Your task to perform on an android device: change keyboard looks Image 0: 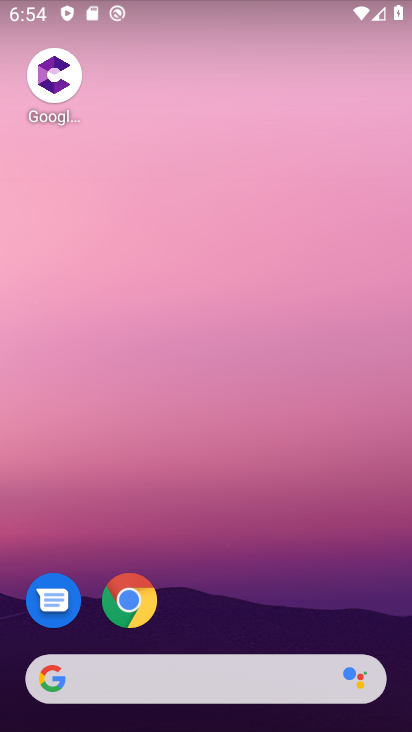
Step 0: drag from (280, 590) to (237, 142)
Your task to perform on an android device: change keyboard looks Image 1: 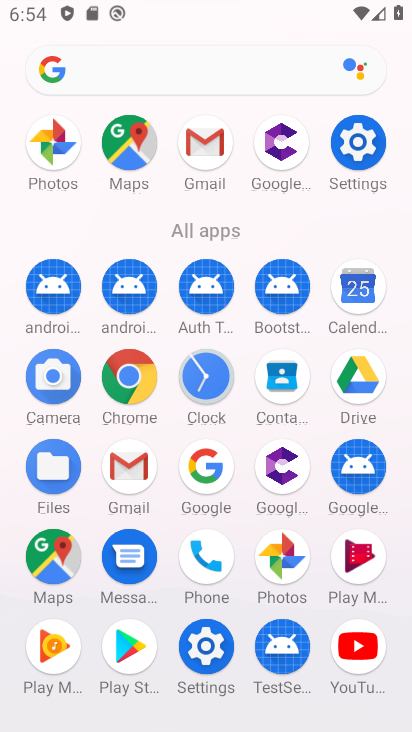
Step 1: click (360, 143)
Your task to perform on an android device: change keyboard looks Image 2: 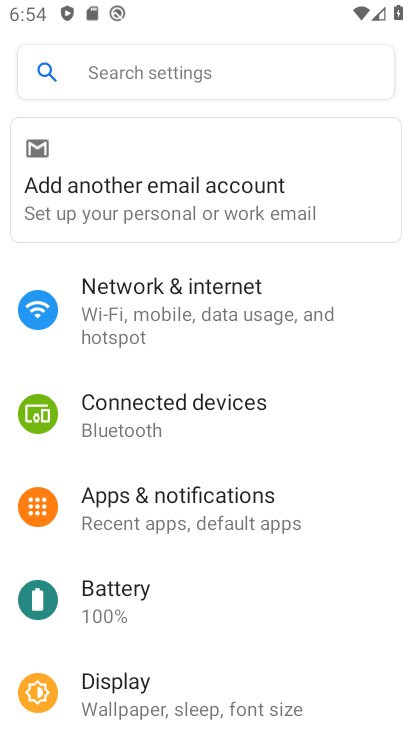
Step 2: drag from (175, 429) to (228, 344)
Your task to perform on an android device: change keyboard looks Image 3: 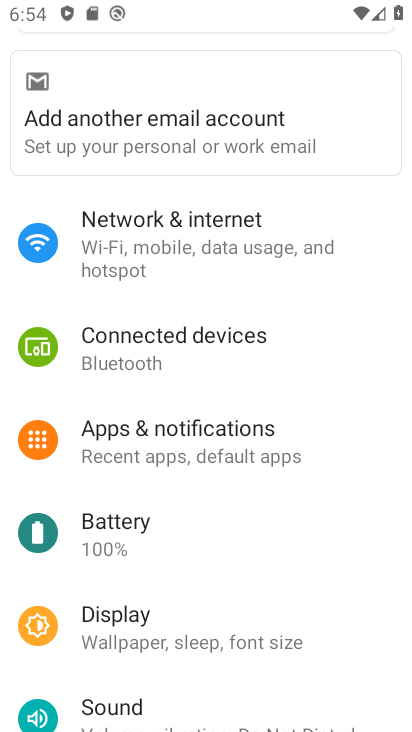
Step 3: drag from (164, 481) to (239, 368)
Your task to perform on an android device: change keyboard looks Image 4: 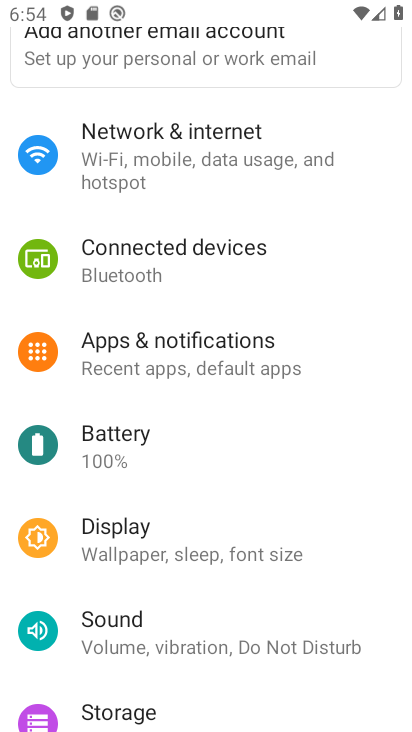
Step 4: drag from (139, 482) to (233, 381)
Your task to perform on an android device: change keyboard looks Image 5: 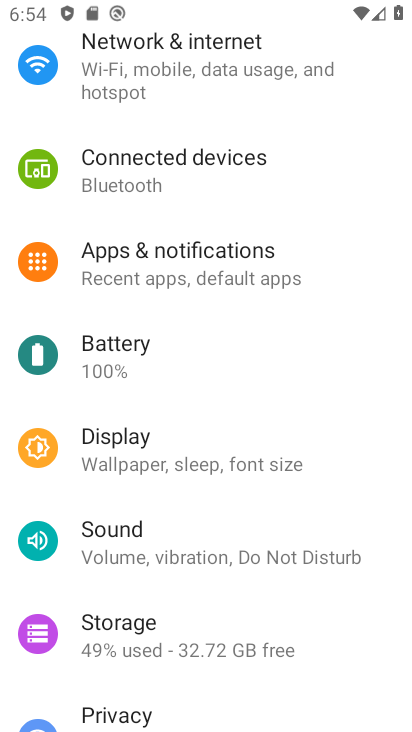
Step 5: drag from (138, 404) to (239, 293)
Your task to perform on an android device: change keyboard looks Image 6: 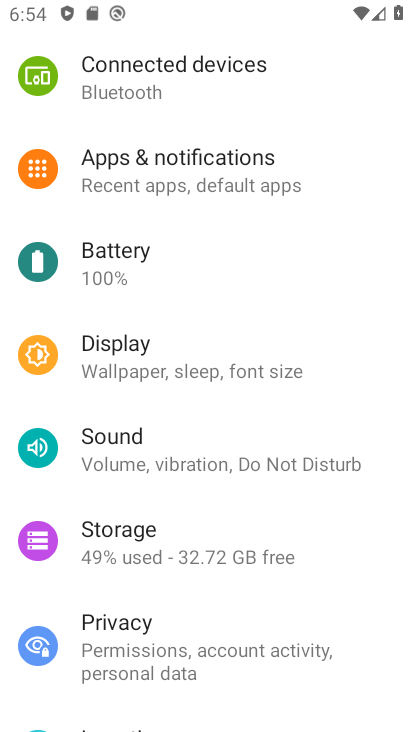
Step 6: drag from (117, 401) to (238, 278)
Your task to perform on an android device: change keyboard looks Image 7: 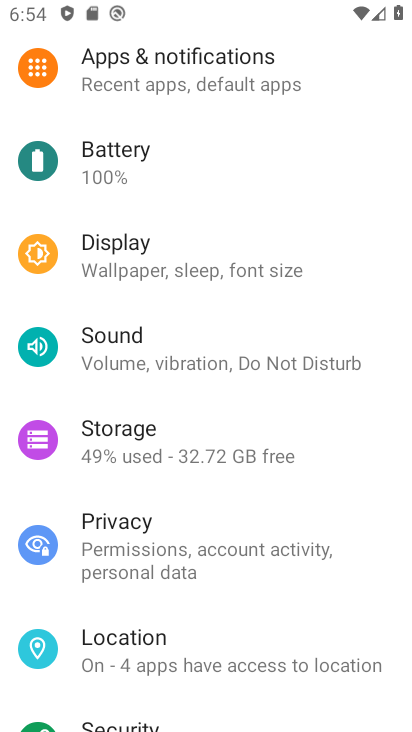
Step 7: drag from (121, 409) to (250, 287)
Your task to perform on an android device: change keyboard looks Image 8: 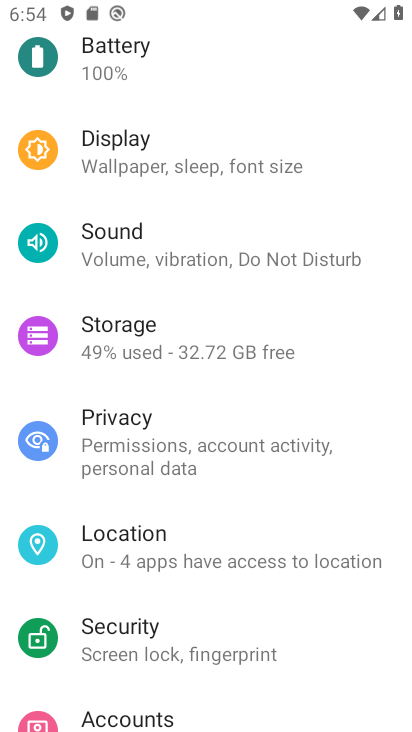
Step 8: drag from (115, 388) to (225, 272)
Your task to perform on an android device: change keyboard looks Image 9: 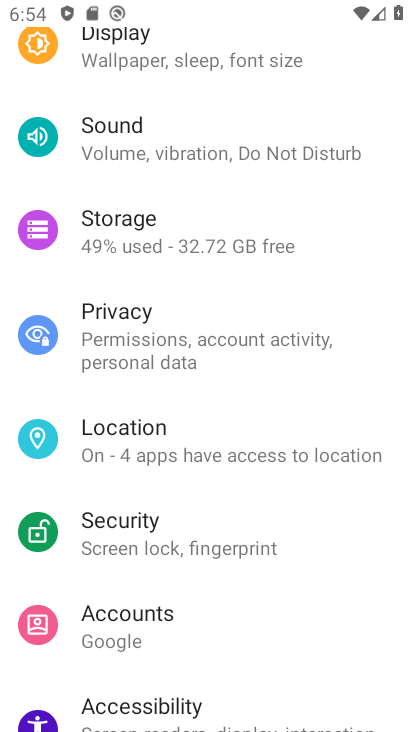
Step 9: drag from (118, 405) to (229, 284)
Your task to perform on an android device: change keyboard looks Image 10: 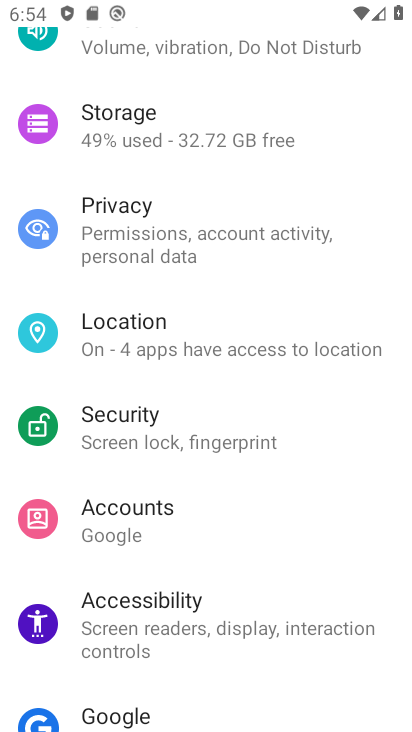
Step 10: drag from (113, 458) to (223, 344)
Your task to perform on an android device: change keyboard looks Image 11: 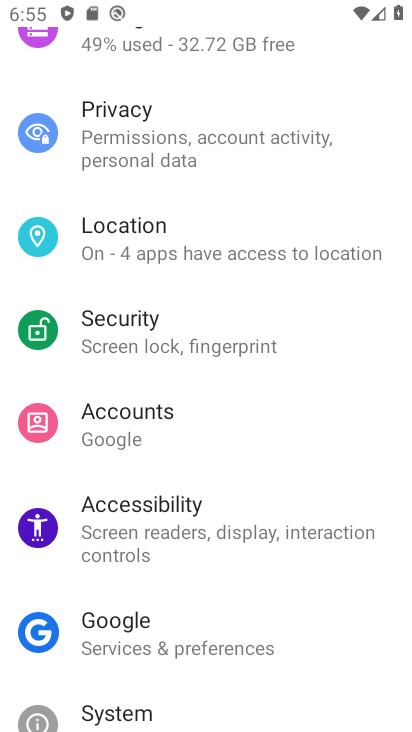
Step 11: drag from (109, 459) to (242, 329)
Your task to perform on an android device: change keyboard looks Image 12: 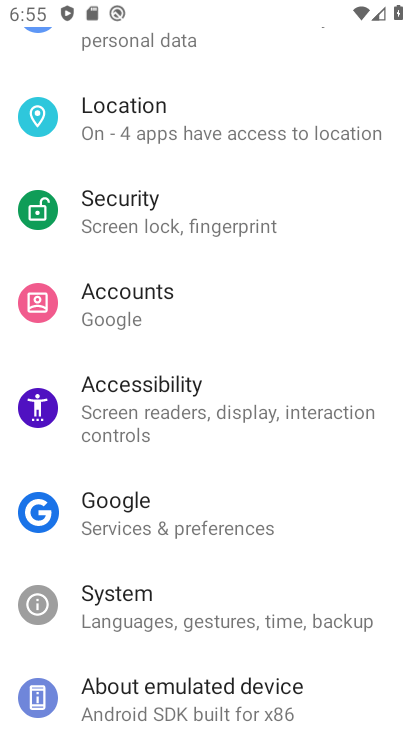
Step 12: click (138, 609)
Your task to perform on an android device: change keyboard looks Image 13: 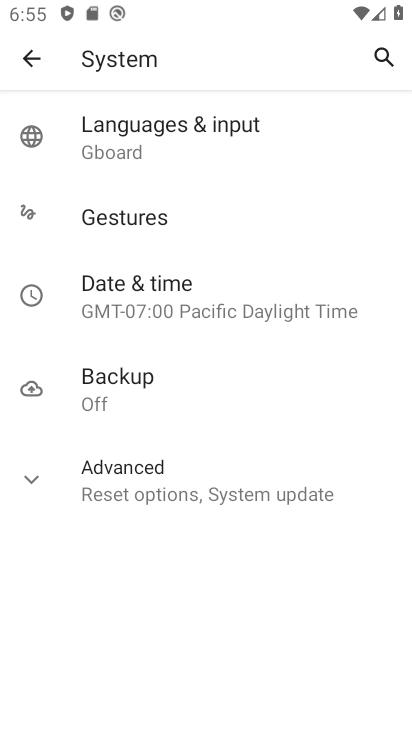
Step 13: click (161, 130)
Your task to perform on an android device: change keyboard looks Image 14: 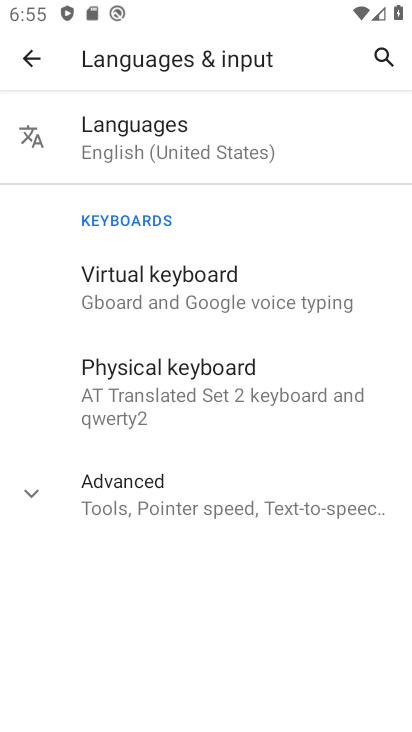
Step 14: click (151, 301)
Your task to perform on an android device: change keyboard looks Image 15: 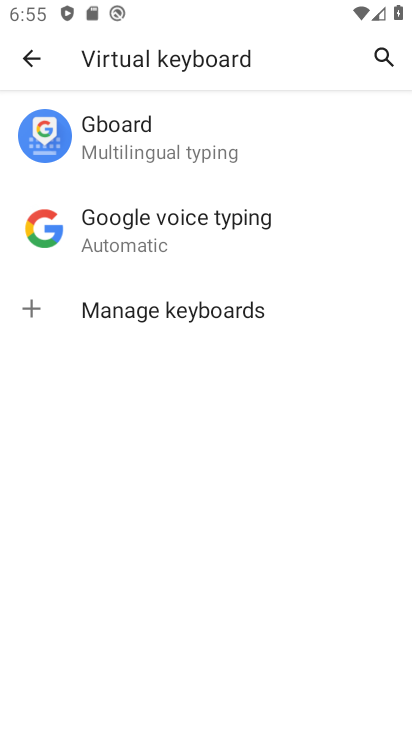
Step 15: click (133, 139)
Your task to perform on an android device: change keyboard looks Image 16: 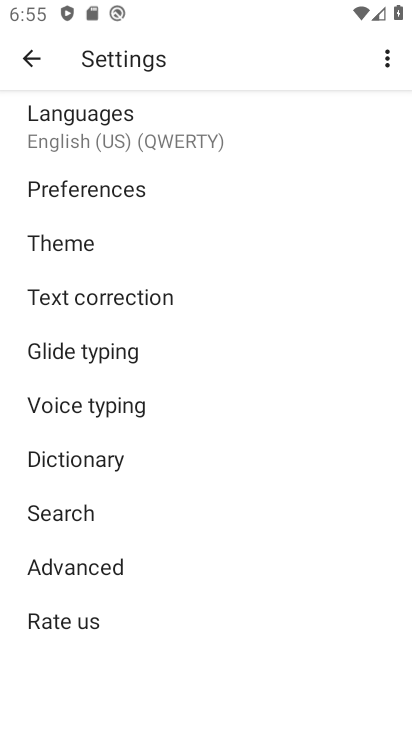
Step 16: click (78, 244)
Your task to perform on an android device: change keyboard looks Image 17: 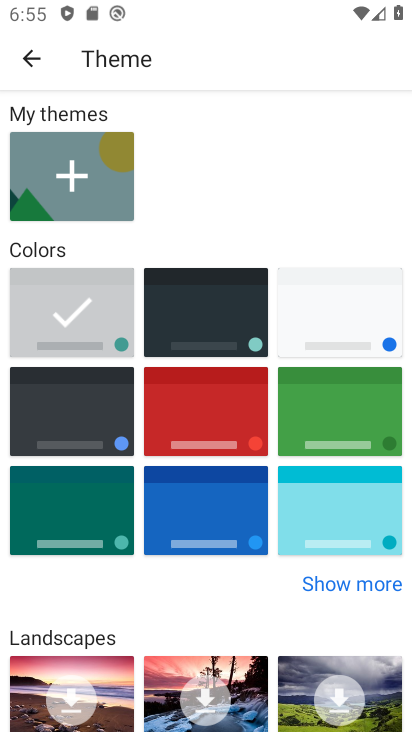
Step 17: click (195, 418)
Your task to perform on an android device: change keyboard looks Image 18: 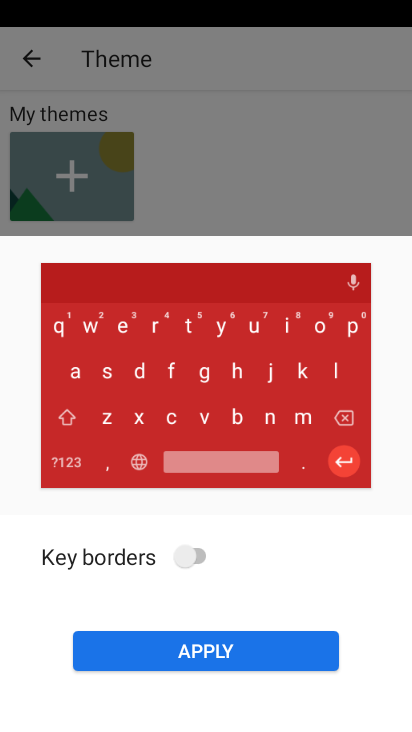
Step 18: click (196, 556)
Your task to perform on an android device: change keyboard looks Image 19: 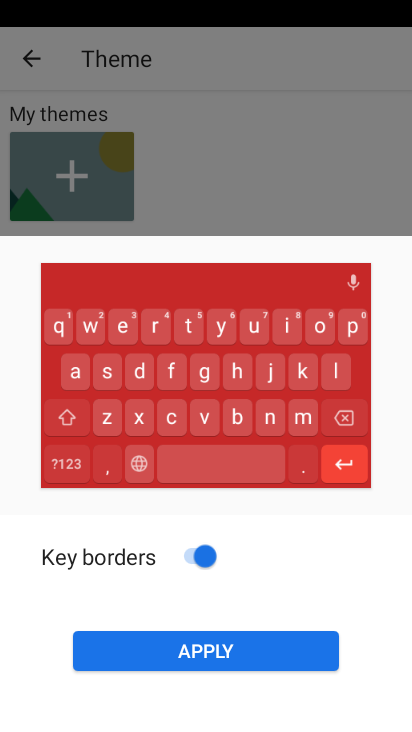
Step 19: click (191, 664)
Your task to perform on an android device: change keyboard looks Image 20: 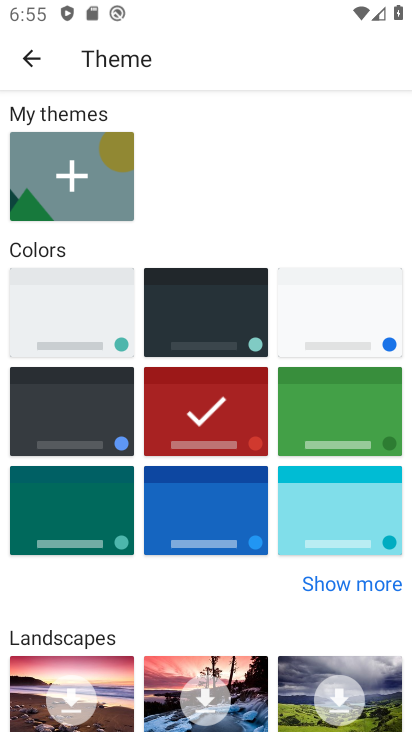
Step 20: task complete